Your task to perform on an android device: Open my contact list Image 0: 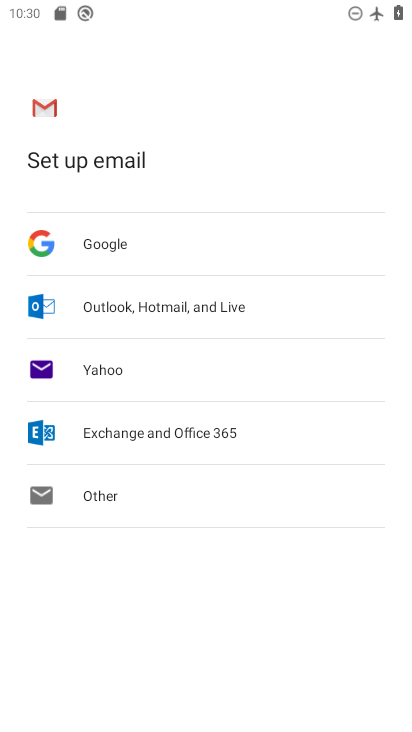
Step 0: press home button
Your task to perform on an android device: Open my contact list Image 1: 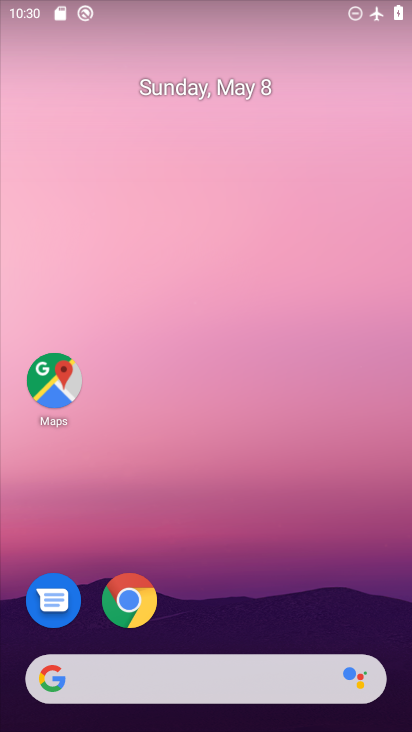
Step 1: drag from (198, 728) to (201, 278)
Your task to perform on an android device: Open my contact list Image 2: 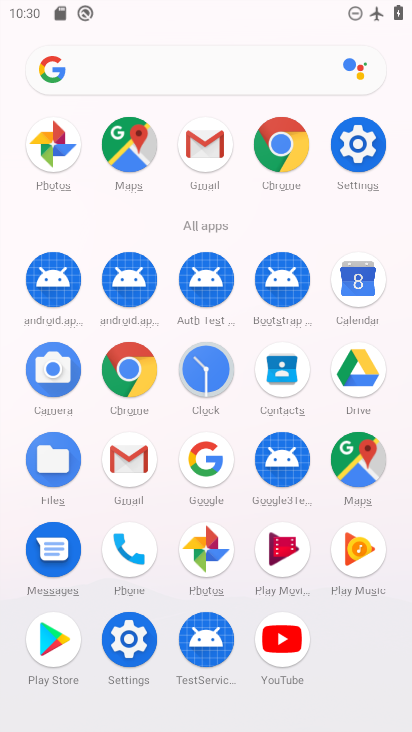
Step 2: click (286, 368)
Your task to perform on an android device: Open my contact list Image 3: 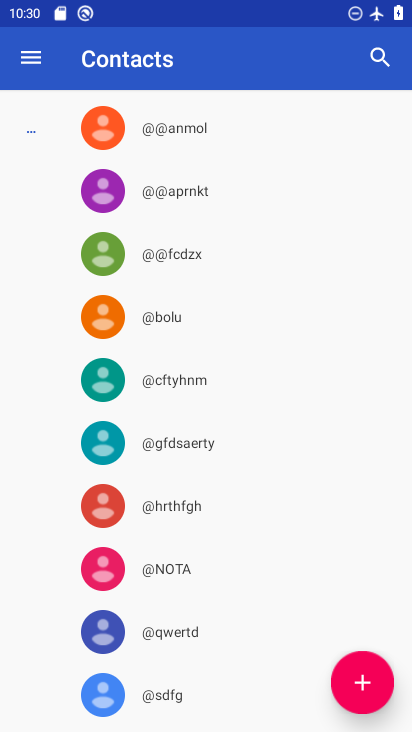
Step 3: task complete